Your task to perform on an android device: See recent photos Image 0: 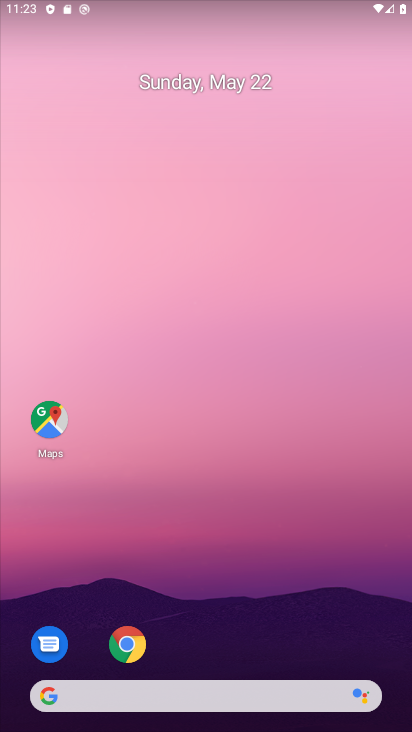
Step 0: drag from (224, 634) to (269, 2)
Your task to perform on an android device: See recent photos Image 1: 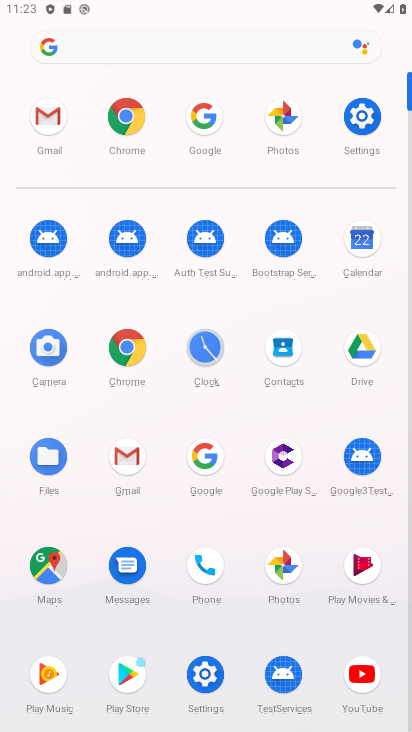
Step 1: click (284, 559)
Your task to perform on an android device: See recent photos Image 2: 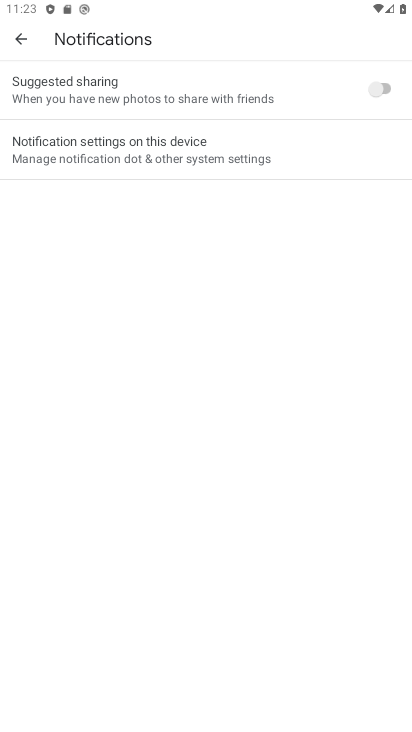
Step 2: press back button
Your task to perform on an android device: See recent photos Image 3: 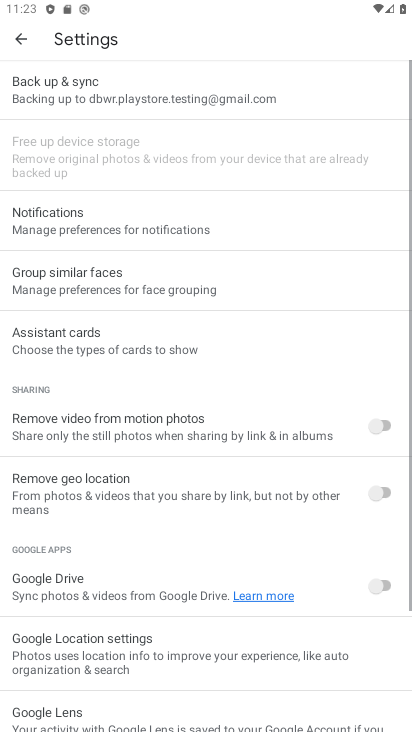
Step 3: press back button
Your task to perform on an android device: See recent photos Image 4: 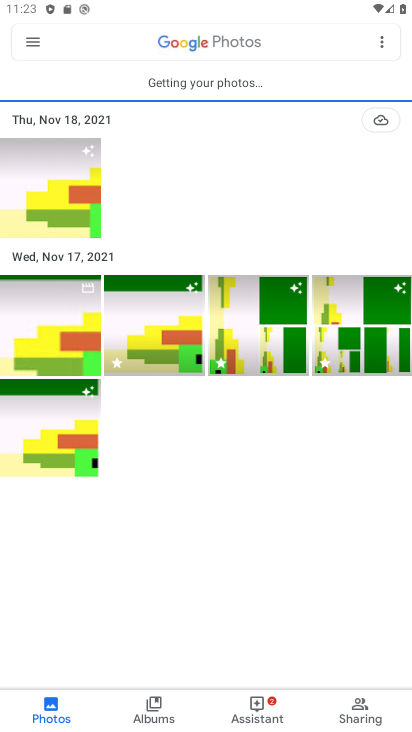
Step 4: click (8, 190)
Your task to perform on an android device: See recent photos Image 5: 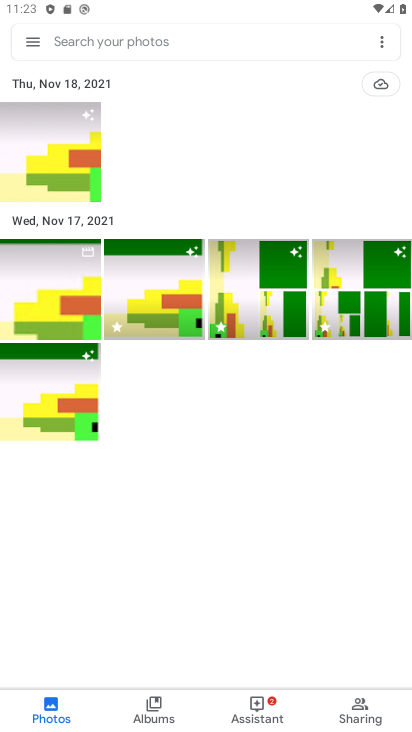
Step 5: click (58, 164)
Your task to perform on an android device: See recent photos Image 6: 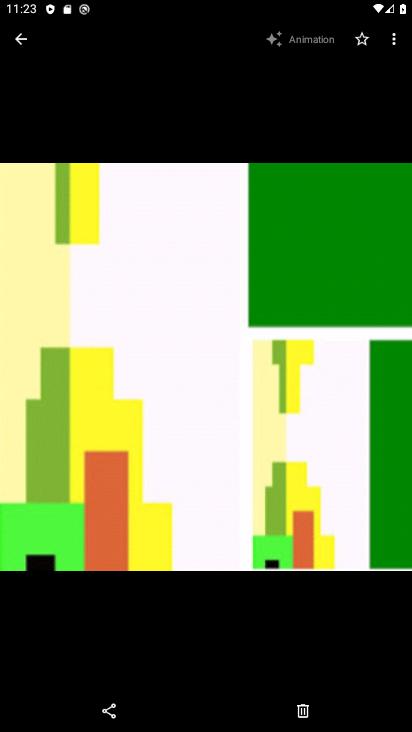
Step 6: task complete